Your task to perform on an android device: turn on wifi Image 0: 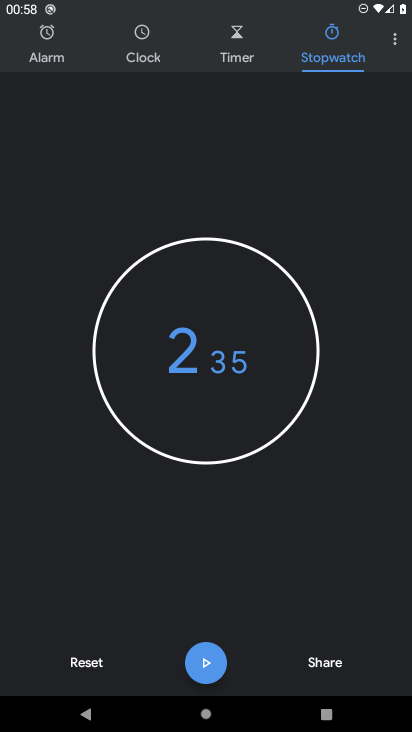
Step 0: press home button
Your task to perform on an android device: turn on wifi Image 1: 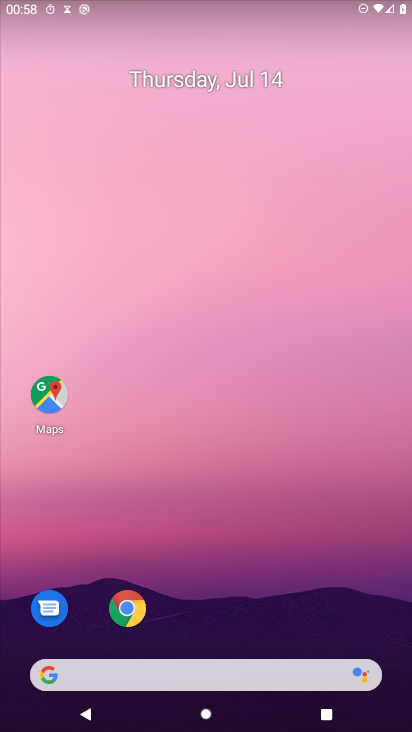
Step 1: task complete